Your task to perform on an android device: Open eBay Image 0: 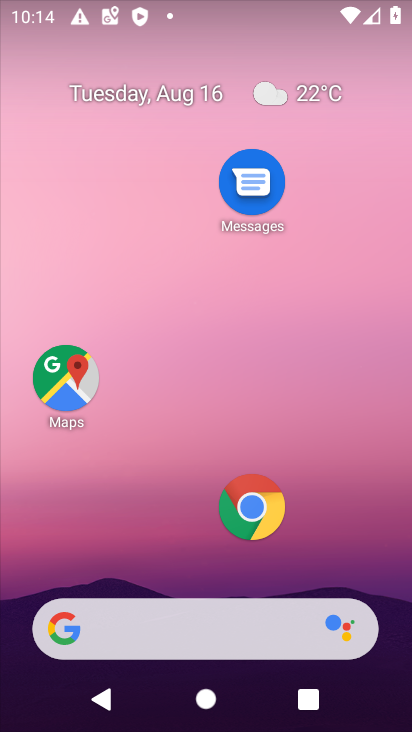
Step 0: click (258, 513)
Your task to perform on an android device: Open eBay Image 1: 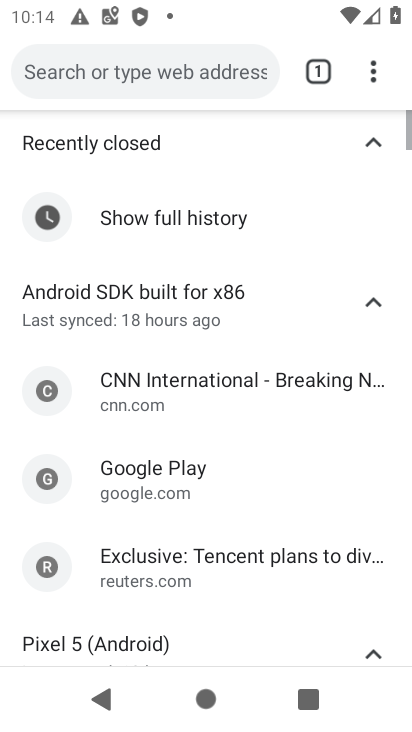
Step 1: click (320, 74)
Your task to perform on an android device: Open eBay Image 2: 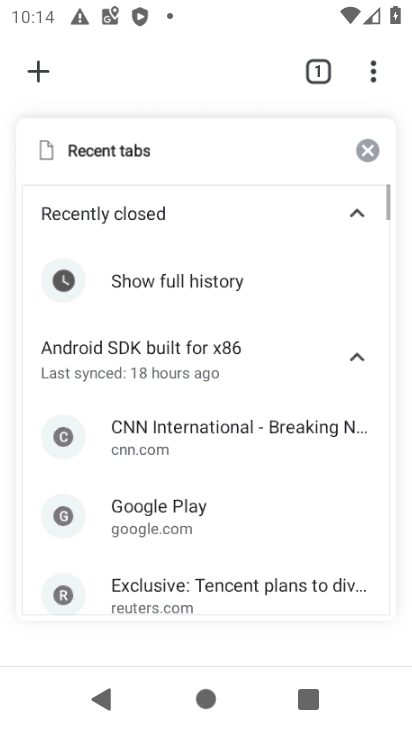
Step 2: click (30, 66)
Your task to perform on an android device: Open eBay Image 3: 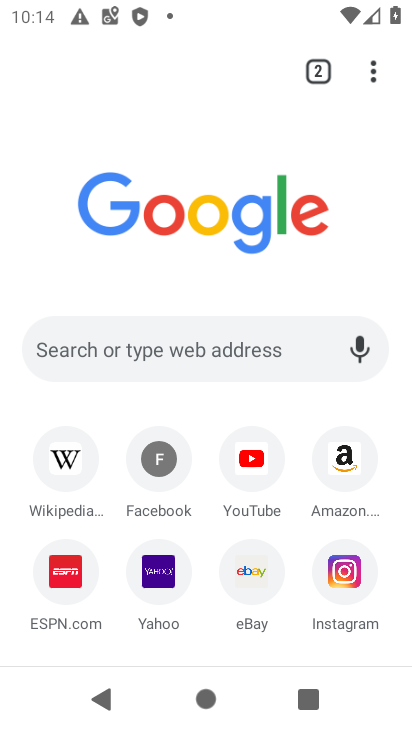
Step 3: click (259, 568)
Your task to perform on an android device: Open eBay Image 4: 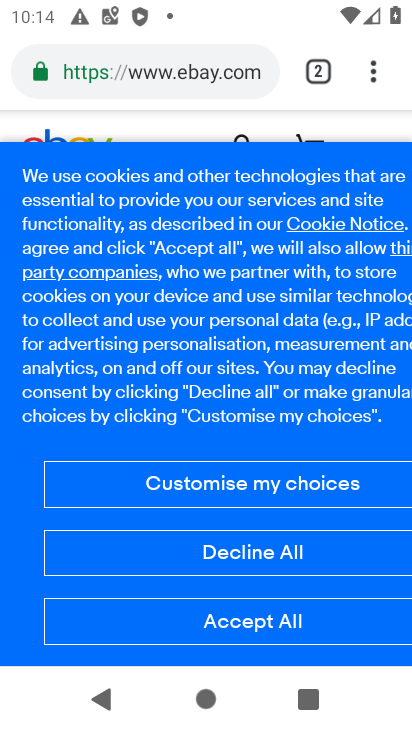
Step 4: task complete